Your task to perform on an android device: turn on priority inbox in the gmail app Image 0: 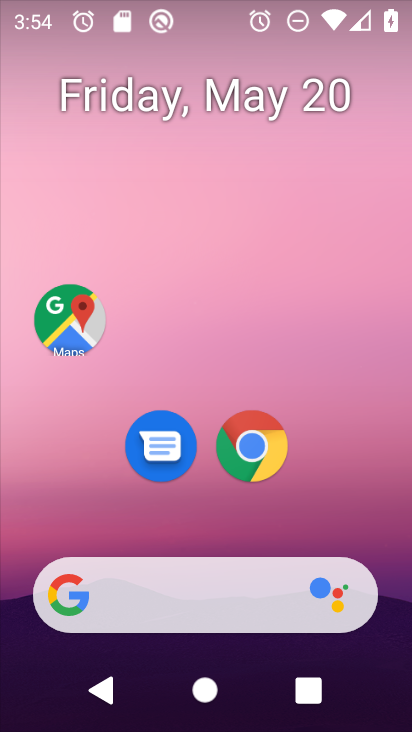
Step 0: drag from (362, 536) to (367, 14)
Your task to perform on an android device: turn on priority inbox in the gmail app Image 1: 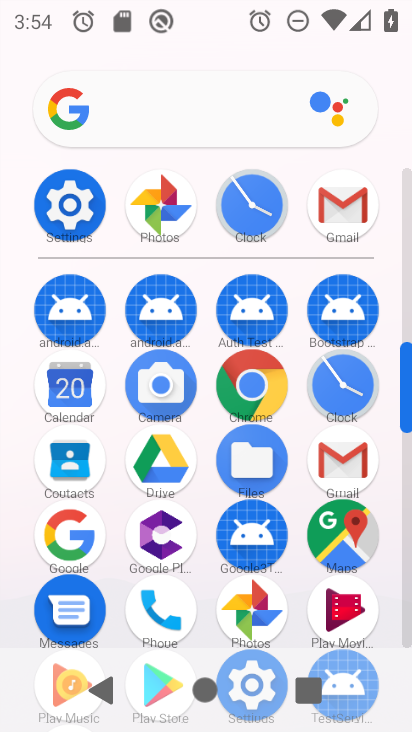
Step 1: click (347, 200)
Your task to perform on an android device: turn on priority inbox in the gmail app Image 2: 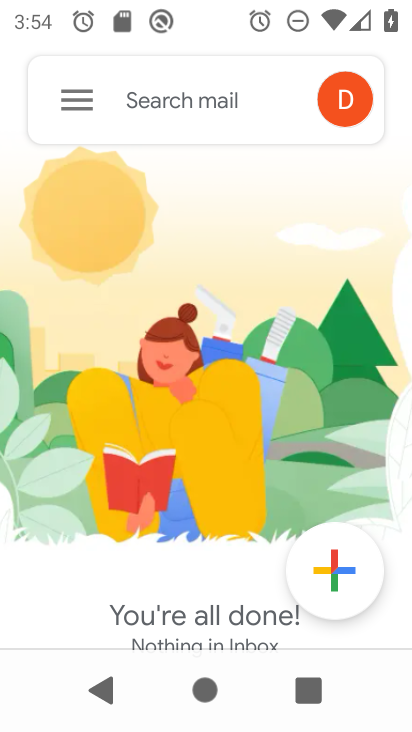
Step 2: click (64, 107)
Your task to perform on an android device: turn on priority inbox in the gmail app Image 3: 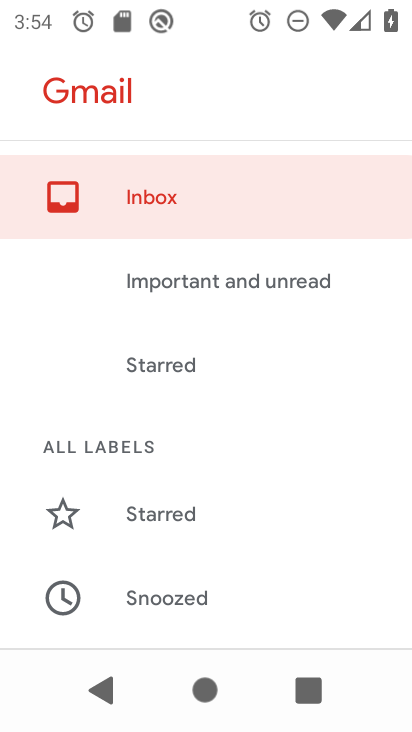
Step 3: drag from (225, 562) to (207, 149)
Your task to perform on an android device: turn on priority inbox in the gmail app Image 4: 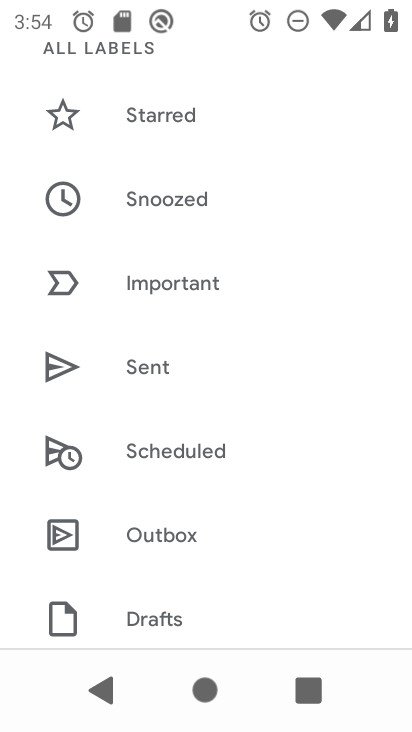
Step 4: drag from (183, 556) to (169, 132)
Your task to perform on an android device: turn on priority inbox in the gmail app Image 5: 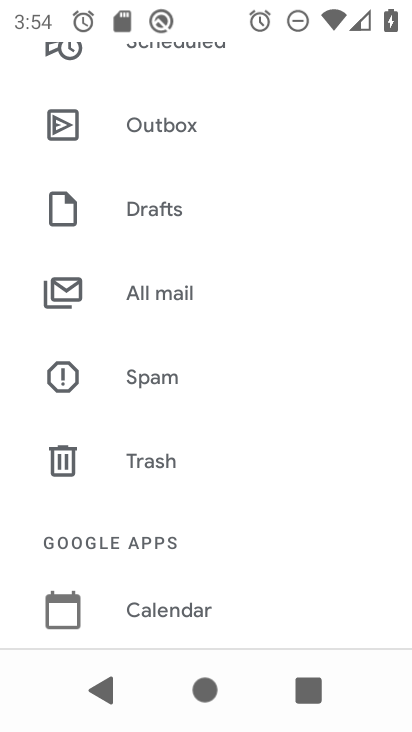
Step 5: drag from (162, 564) to (157, 125)
Your task to perform on an android device: turn on priority inbox in the gmail app Image 6: 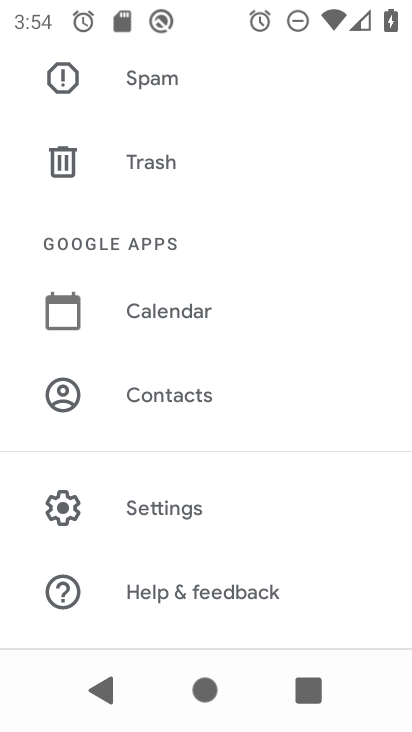
Step 6: click (109, 508)
Your task to perform on an android device: turn on priority inbox in the gmail app Image 7: 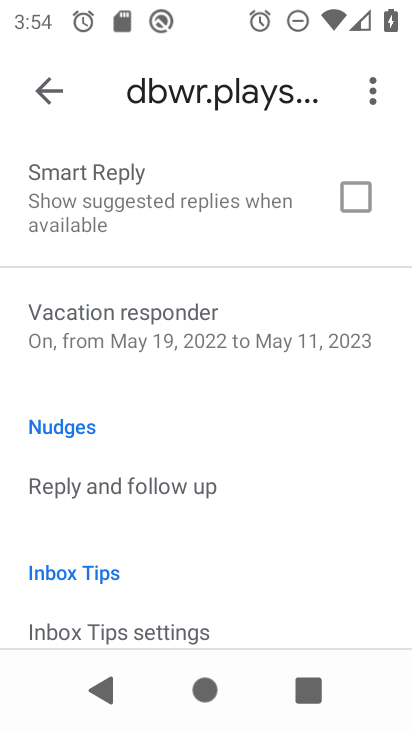
Step 7: drag from (208, 557) to (214, 635)
Your task to perform on an android device: turn on priority inbox in the gmail app Image 8: 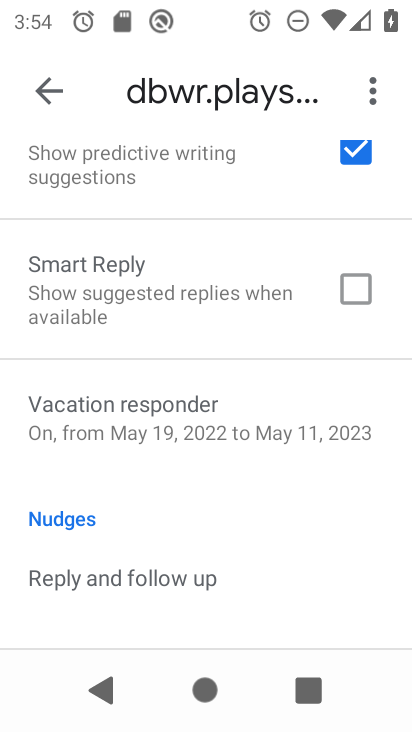
Step 8: drag from (199, 227) to (194, 683)
Your task to perform on an android device: turn on priority inbox in the gmail app Image 9: 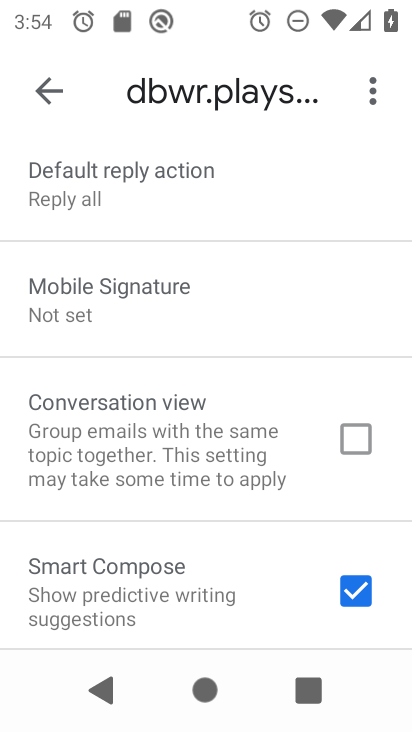
Step 9: drag from (159, 251) to (103, 679)
Your task to perform on an android device: turn on priority inbox in the gmail app Image 10: 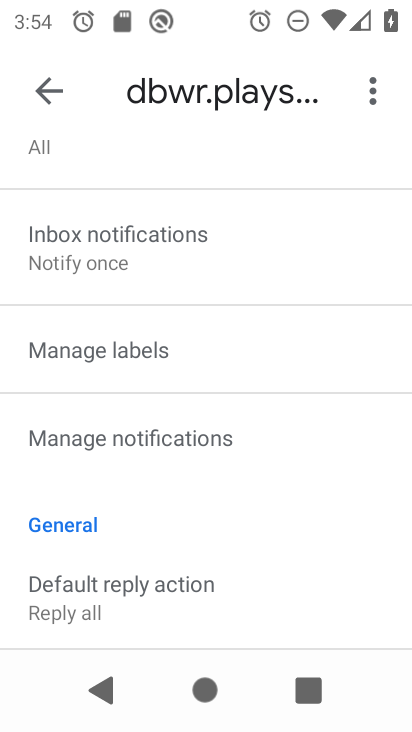
Step 10: drag from (169, 294) to (146, 678)
Your task to perform on an android device: turn on priority inbox in the gmail app Image 11: 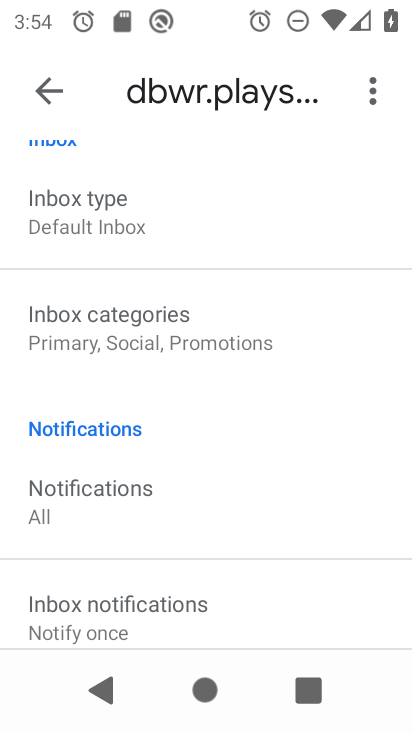
Step 11: click (65, 217)
Your task to perform on an android device: turn on priority inbox in the gmail app Image 12: 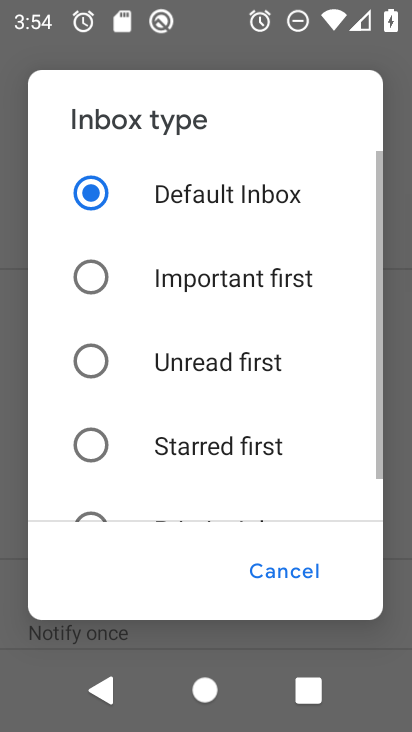
Step 12: drag from (158, 464) to (148, 186)
Your task to perform on an android device: turn on priority inbox in the gmail app Image 13: 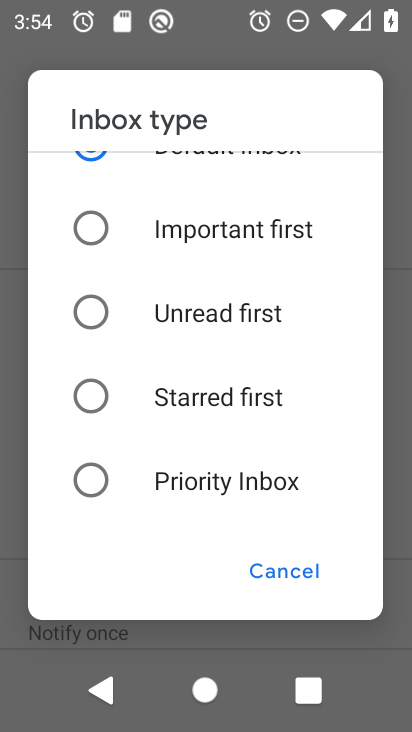
Step 13: click (96, 485)
Your task to perform on an android device: turn on priority inbox in the gmail app Image 14: 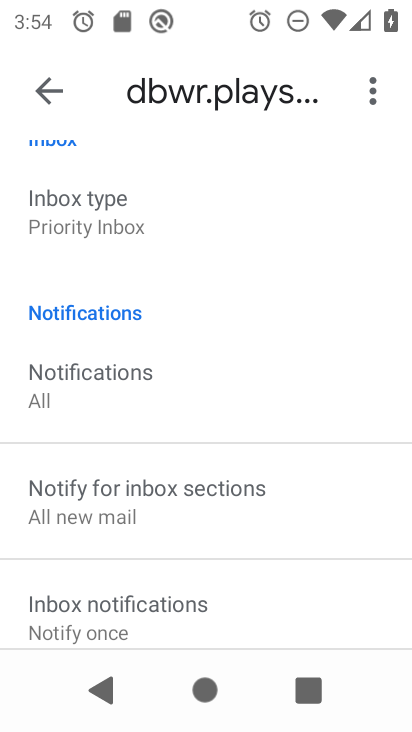
Step 14: task complete